Your task to perform on an android device: turn on notifications settings in the gmail app Image 0: 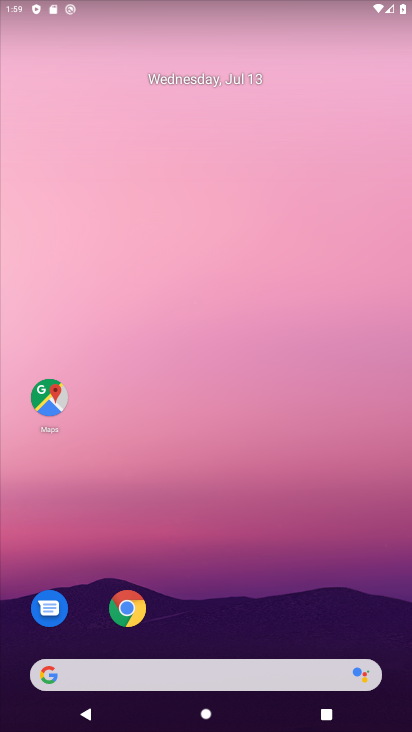
Step 0: drag from (256, 13) to (248, 168)
Your task to perform on an android device: turn on notifications settings in the gmail app Image 1: 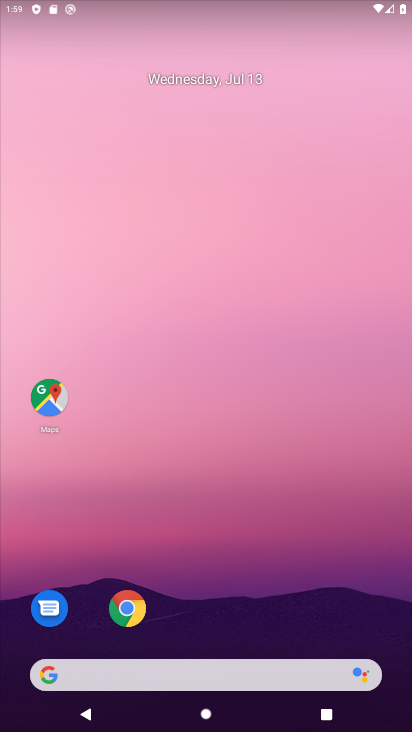
Step 1: drag from (231, 620) to (219, 111)
Your task to perform on an android device: turn on notifications settings in the gmail app Image 2: 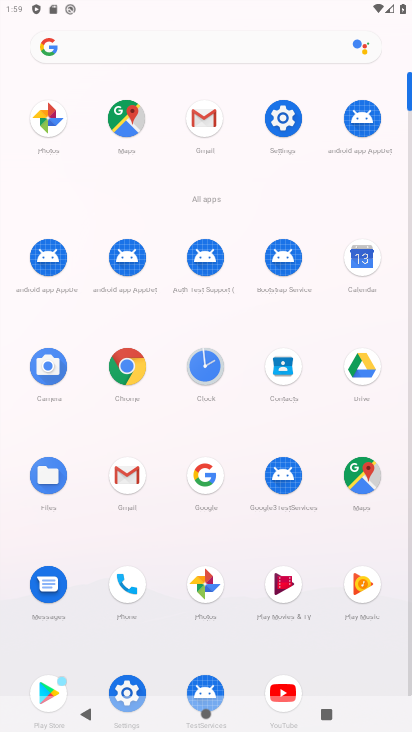
Step 2: click (205, 113)
Your task to perform on an android device: turn on notifications settings in the gmail app Image 3: 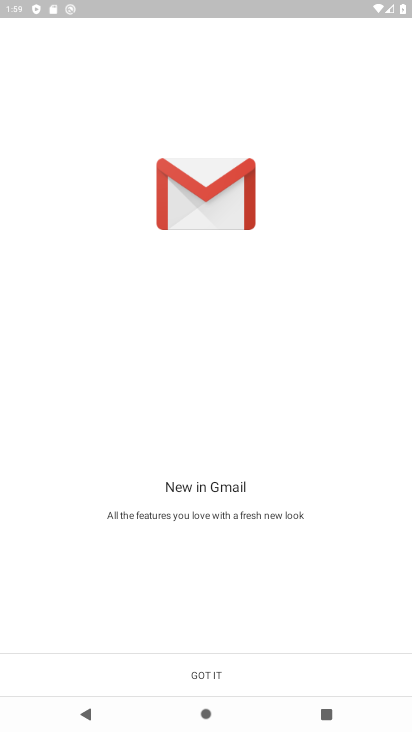
Step 3: click (205, 673)
Your task to perform on an android device: turn on notifications settings in the gmail app Image 4: 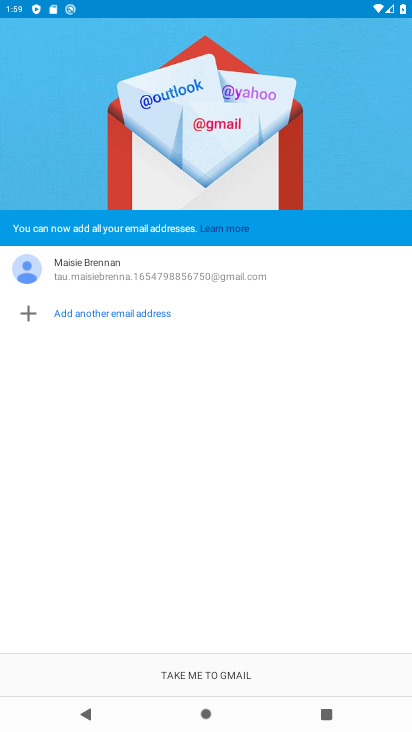
Step 4: click (205, 673)
Your task to perform on an android device: turn on notifications settings in the gmail app Image 5: 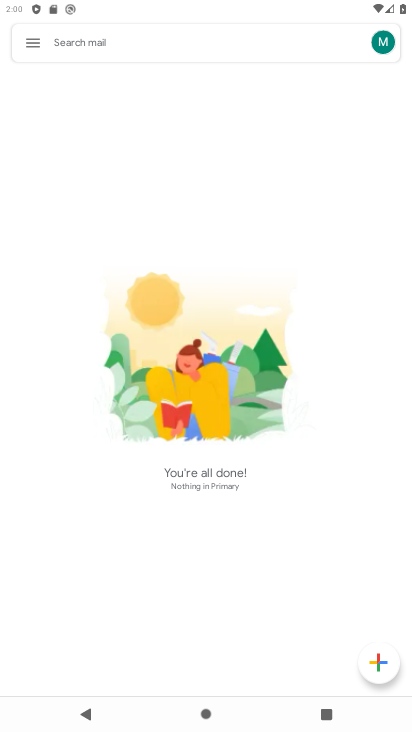
Step 5: click (35, 44)
Your task to perform on an android device: turn on notifications settings in the gmail app Image 6: 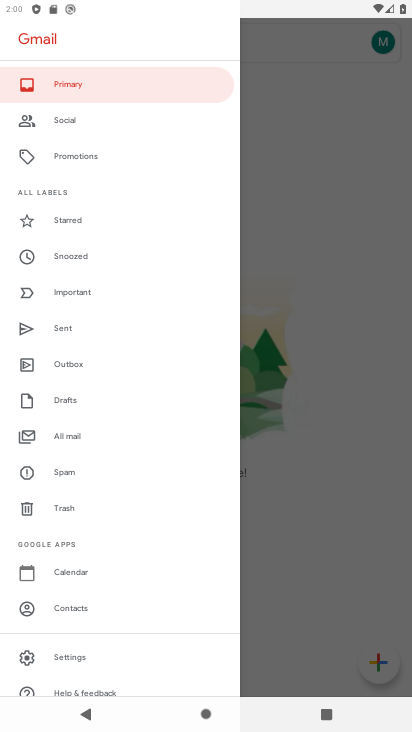
Step 6: click (63, 661)
Your task to perform on an android device: turn on notifications settings in the gmail app Image 7: 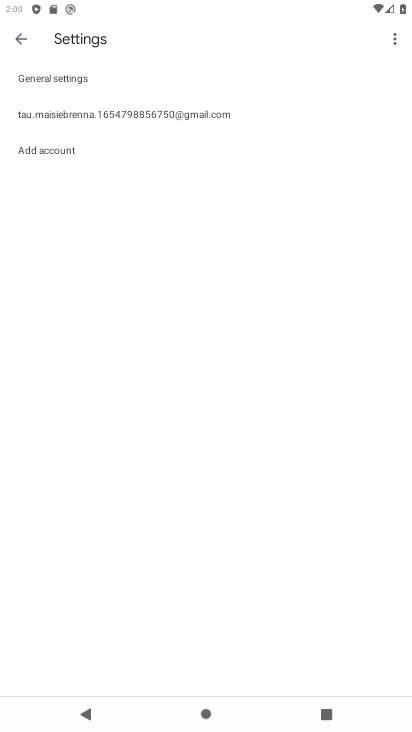
Step 7: click (79, 111)
Your task to perform on an android device: turn on notifications settings in the gmail app Image 8: 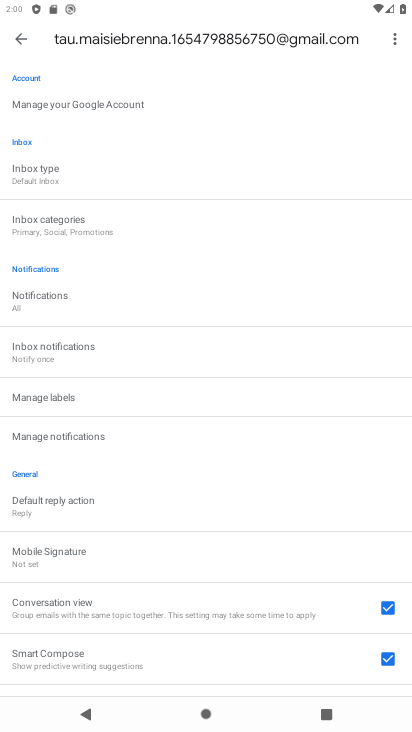
Step 8: click (32, 442)
Your task to perform on an android device: turn on notifications settings in the gmail app Image 9: 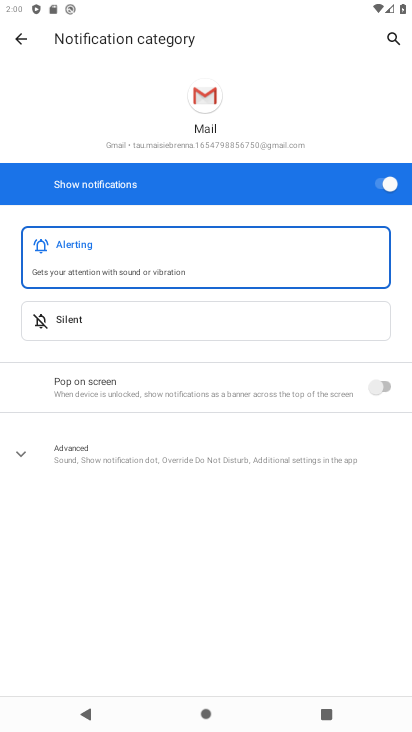
Step 9: task complete